Your task to perform on an android device: set the stopwatch Image 0: 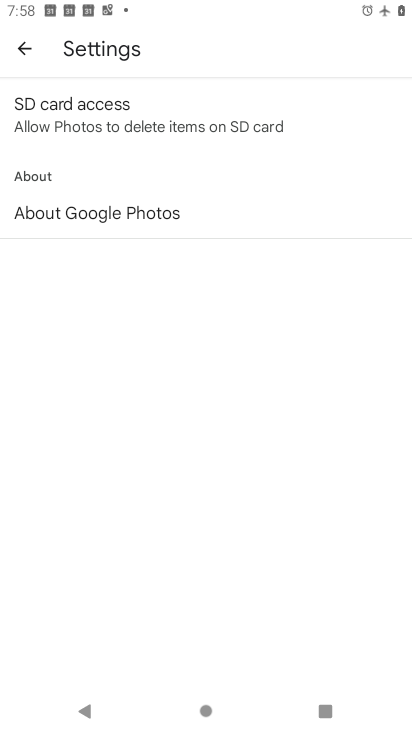
Step 0: press home button
Your task to perform on an android device: set the stopwatch Image 1: 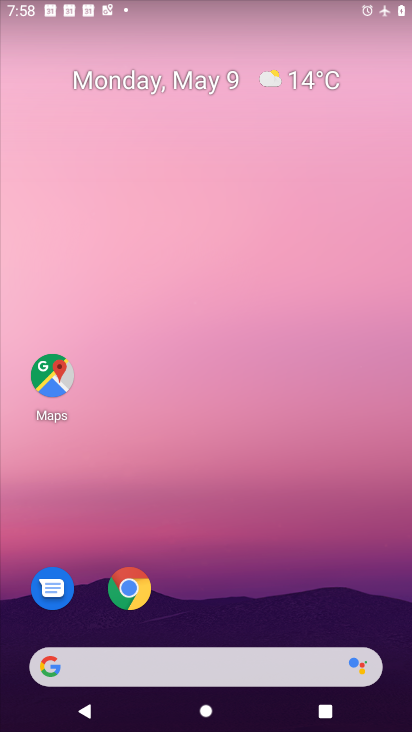
Step 1: drag from (316, 618) to (246, 22)
Your task to perform on an android device: set the stopwatch Image 2: 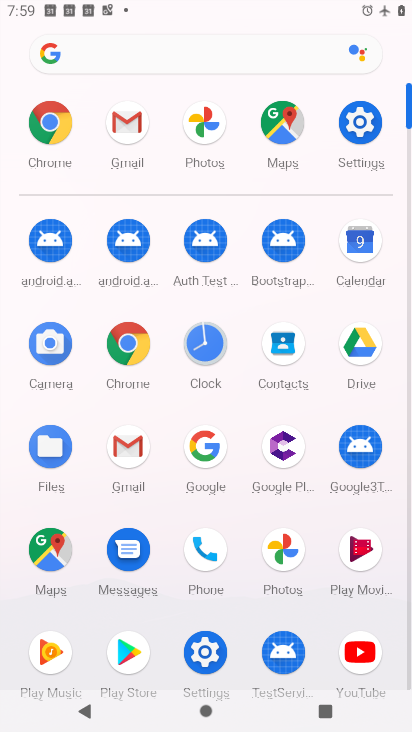
Step 2: click (189, 342)
Your task to perform on an android device: set the stopwatch Image 3: 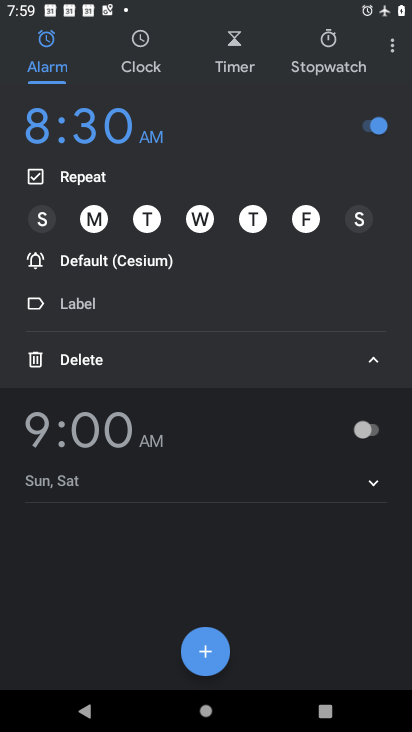
Step 3: click (322, 57)
Your task to perform on an android device: set the stopwatch Image 4: 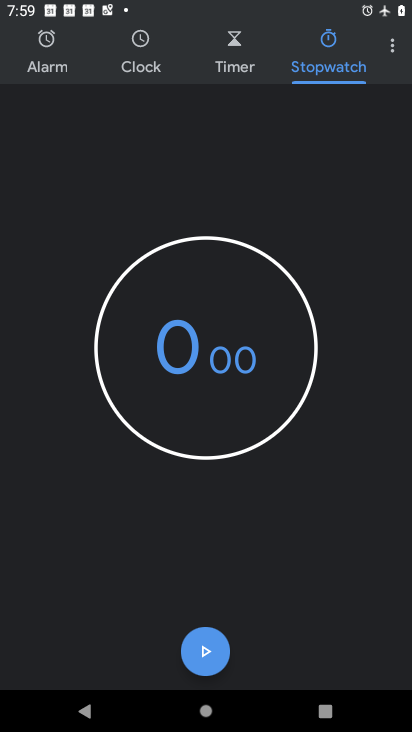
Step 4: task complete